Your task to perform on an android device: turn on translation in the chrome app Image 0: 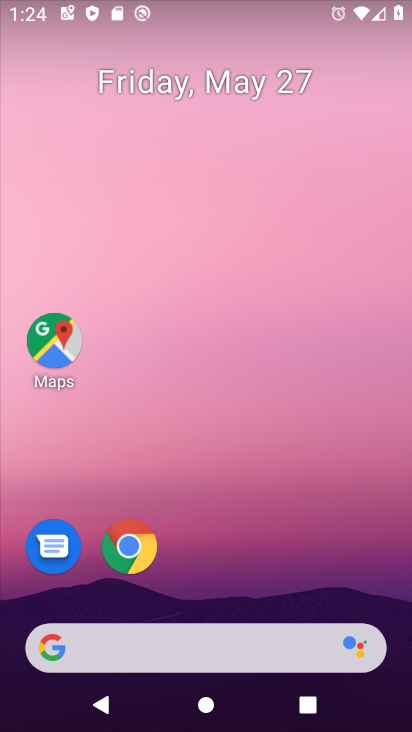
Step 0: drag from (311, 635) to (348, 39)
Your task to perform on an android device: turn on translation in the chrome app Image 1: 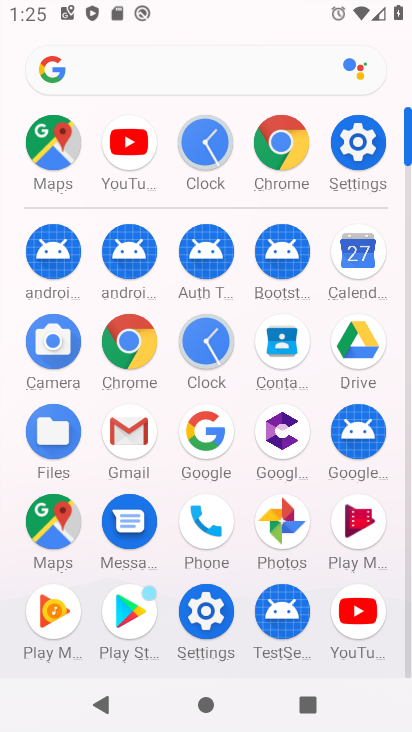
Step 1: click (134, 339)
Your task to perform on an android device: turn on translation in the chrome app Image 2: 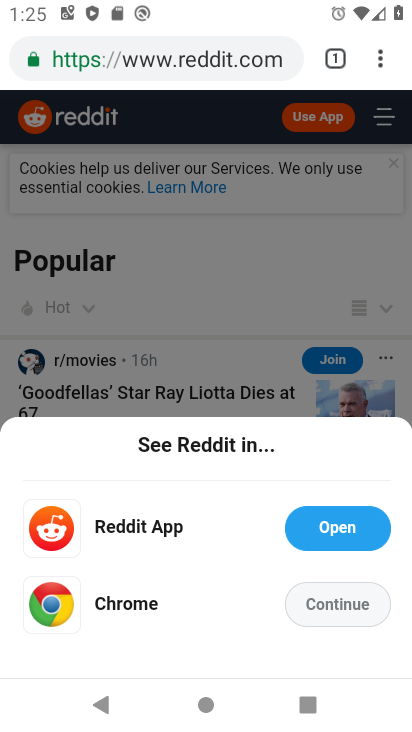
Step 2: click (375, 67)
Your task to perform on an android device: turn on translation in the chrome app Image 3: 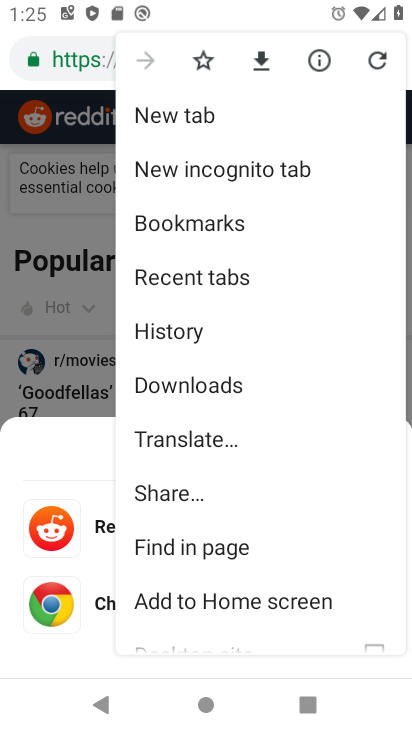
Step 3: drag from (229, 462) to (212, 360)
Your task to perform on an android device: turn on translation in the chrome app Image 4: 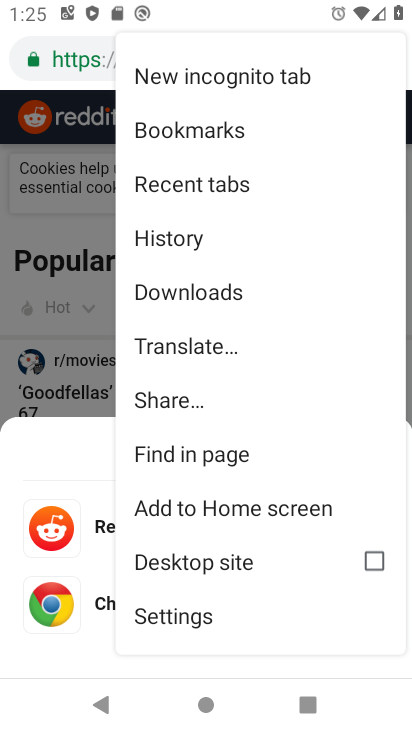
Step 4: click (190, 616)
Your task to perform on an android device: turn on translation in the chrome app Image 5: 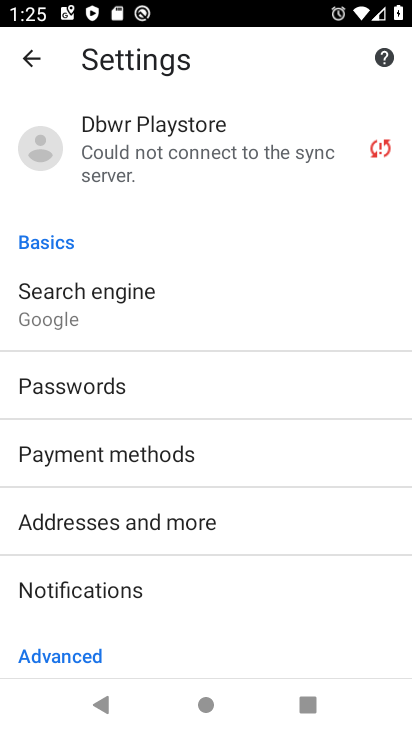
Step 5: drag from (184, 612) to (168, 410)
Your task to perform on an android device: turn on translation in the chrome app Image 6: 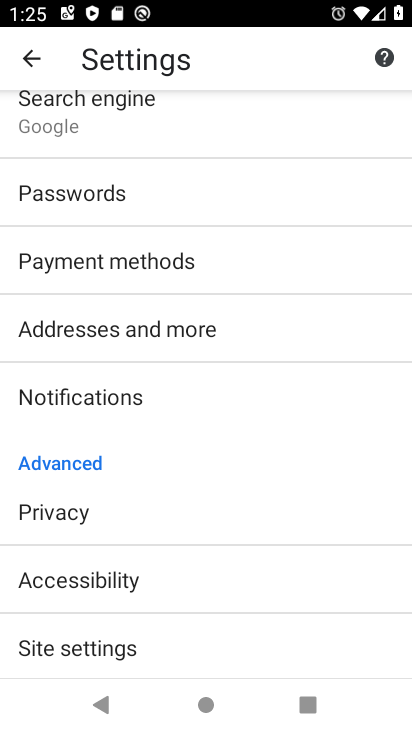
Step 6: drag from (176, 570) to (164, 412)
Your task to perform on an android device: turn on translation in the chrome app Image 7: 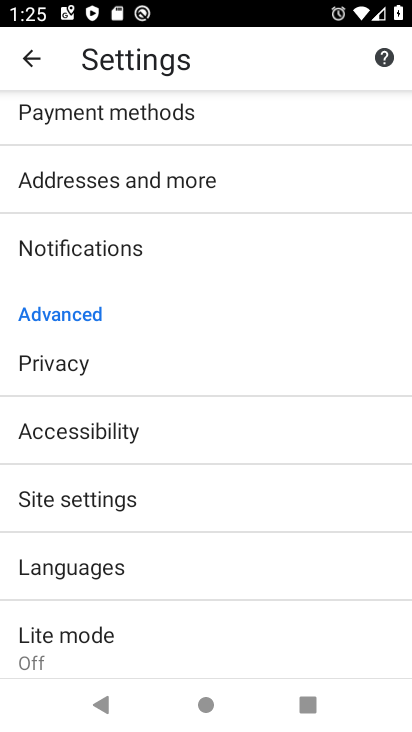
Step 7: click (103, 576)
Your task to perform on an android device: turn on translation in the chrome app Image 8: 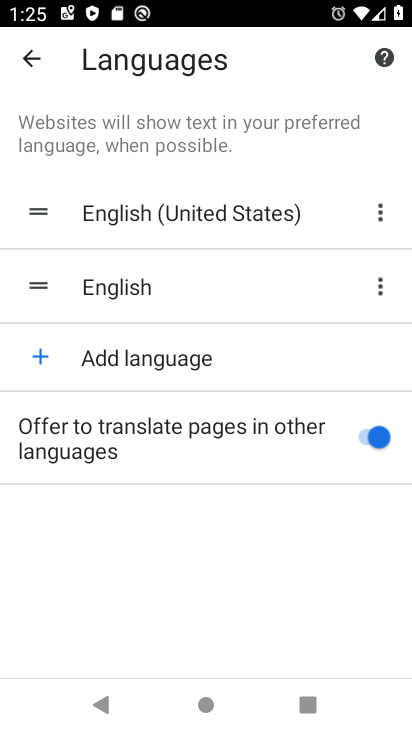
Step 8: task complete